Your task to perform on an android device: turn on sleep mode Image 0: 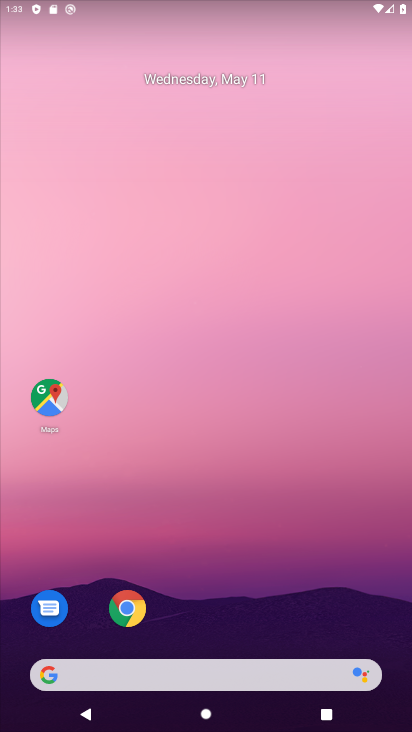
Step 0: drag from (255, 464) to (260, 0)
Your task to perform on an android device: turn on sleep mode Image 1: 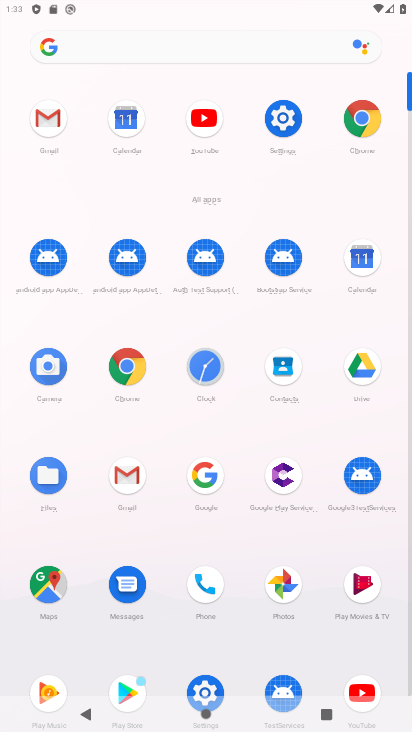
Step 1: click (282, 109)
Your task to perform on an android device: turn on sleep mode Image 2: 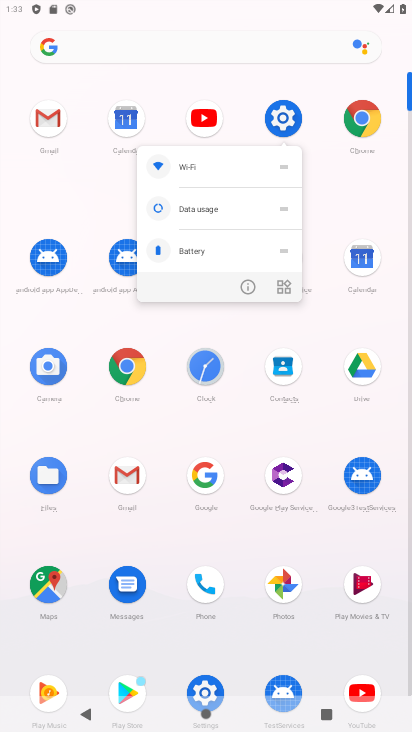
Step 2: click (290, 117)
Your task to perform on an android device: turn on sleep mode Image 3: 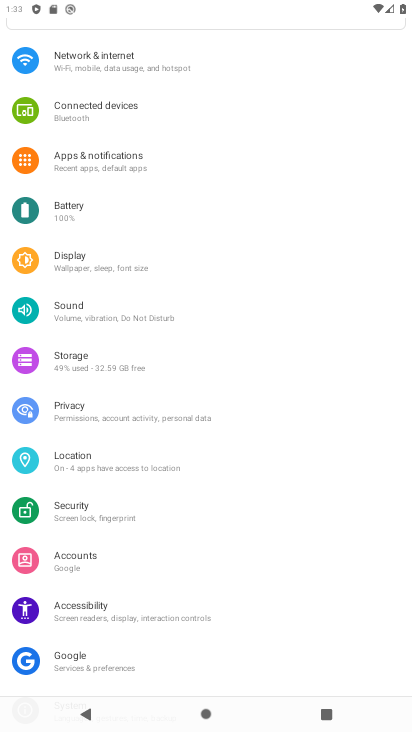
Step 3: drag from (290, 117) to (306, 411)
Your task to perform on an android device: turn on sleep mode Image 4: 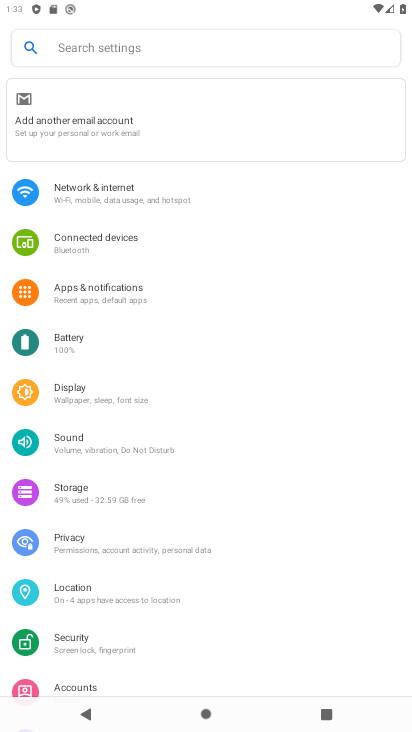
Step 4: drag from (263, 532) to (253, 268)
Your task to perform on an android device: turn on sleep mode Image 5: 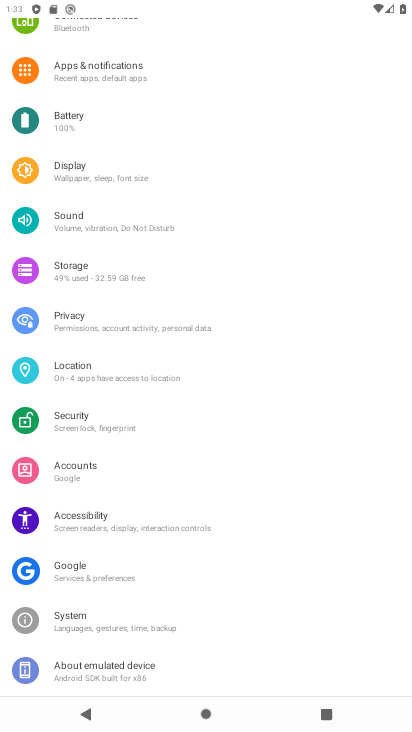
Step 5: click (117, 180)
Your task to perform on an android device: turn on sleep mode Image 6: 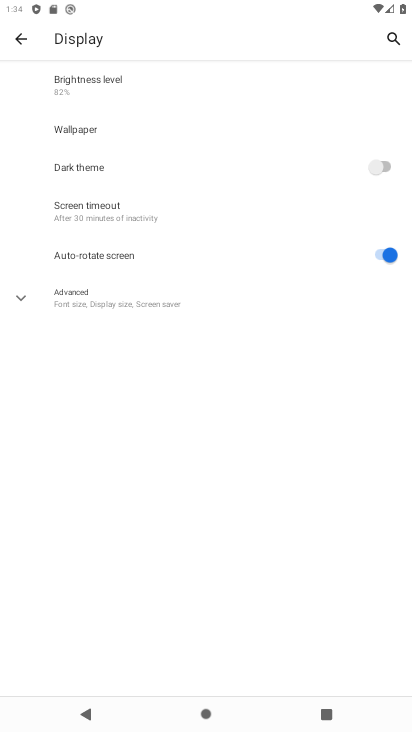
Step 6: click (117, 79)
Your task to perform on an android device: turn on sleep mode Image 7: 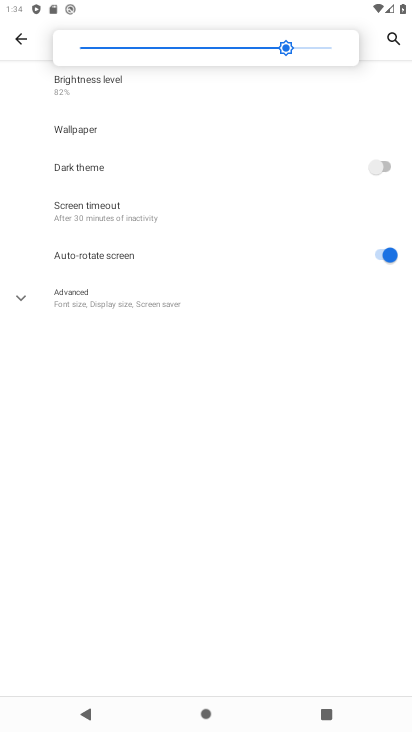
Step 7: click (146, 472)
Your task to perform on an android device: turn on sleep mode Image 8: 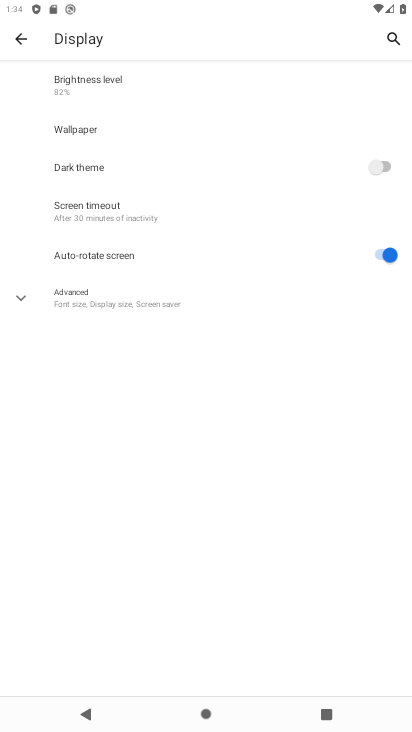
Step 8: click (117, 124)
Your task to perform on an android device: turn on sleep mode Image 9: 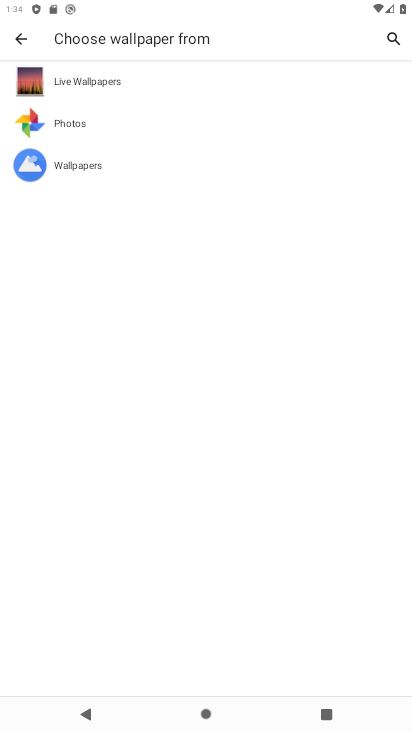
Step 9: click (29, 30)
Your task to perform on an android device: turn on sleep mode Image 10: 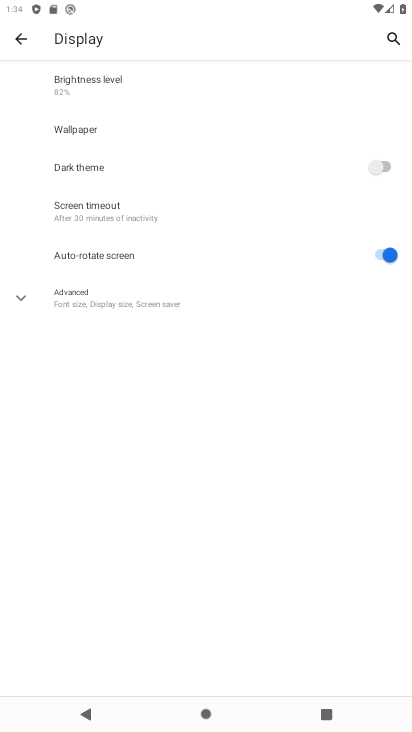
Step 10: task complete